Your task to perform on an android device: Open Youtube and go to the subscriptions tab Image 0: 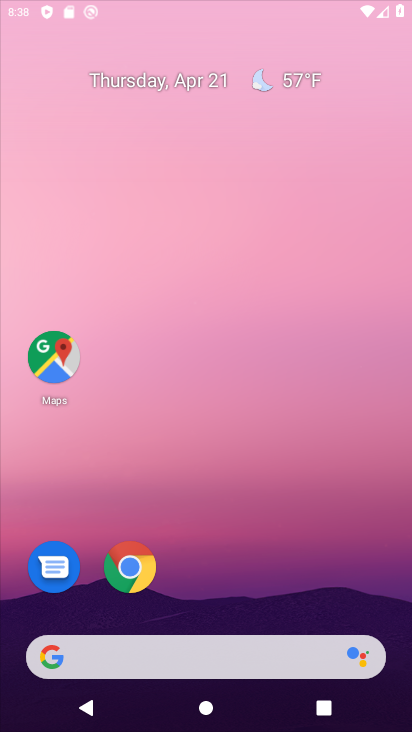
Step 0: click (199, 38)
Your task to perform on an android device: Open Youtube and go to the subscriptions tab Image 1: 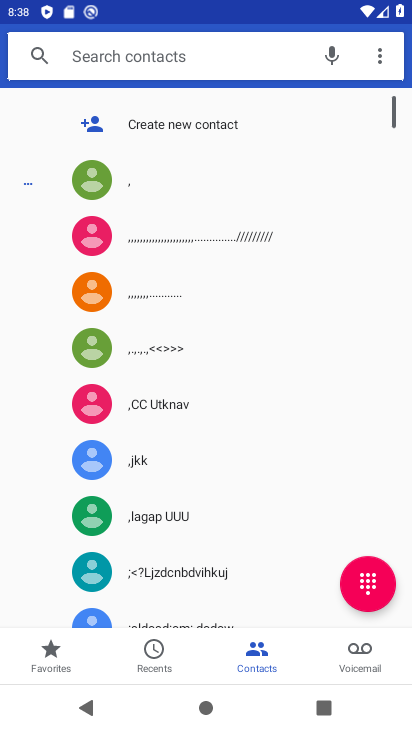
Step 1: press home button
Your task to perform on an android device: Open Youtube and go to the subscriptions tab Image 2: 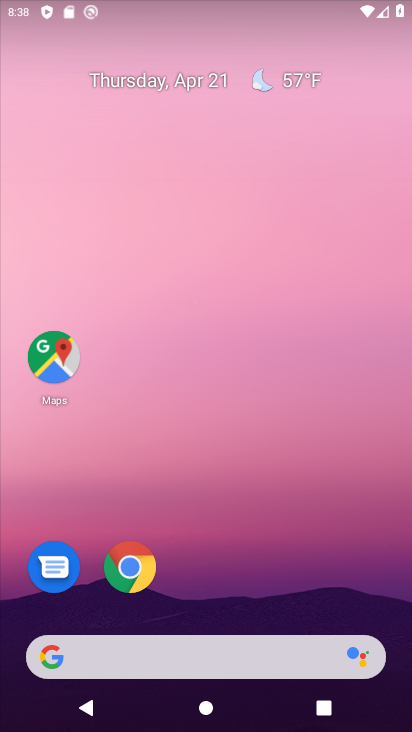
Step 2: drag from (207, 616) to (198, 10)
Your task to perform on an android device: Open Youtube and go to the subscriptions tab Image 3: 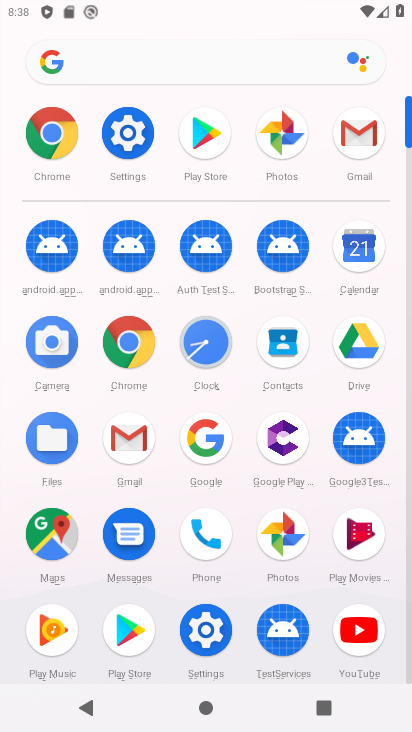
Step 3: click (352, 618)
Your task to perform on an android device: Open Youtube and go to the subscriptions tab Image 4: 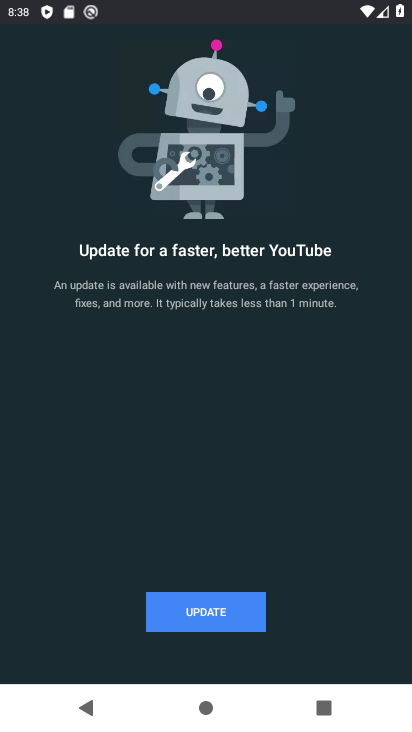
Step 4: click (179, 611)
Your task to perform on an android device: Open Youtube and go to the subscriptions tab Image 5: 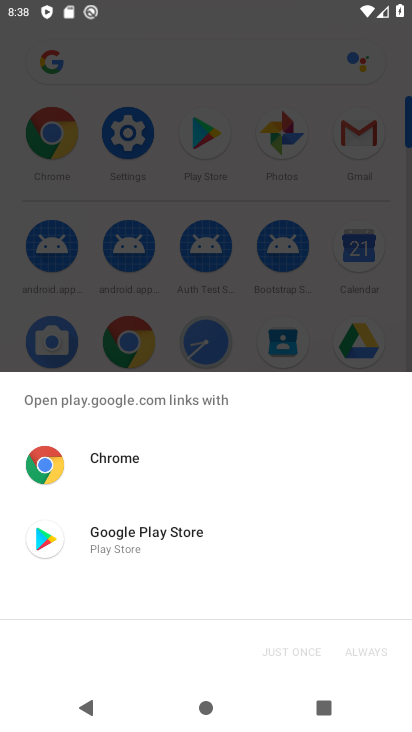
Step 5: click (201, 547)
Your task to perform on an android device: Open Youtube and go to the subscriptions tab Image 6: 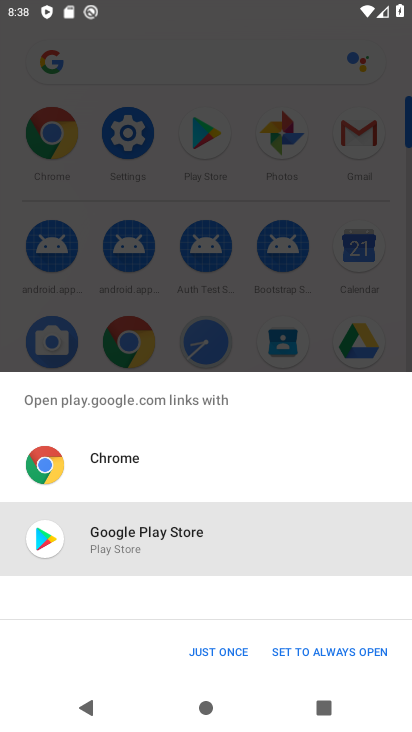
Step 6: click (206, 654)
Your task to perform on an android device: Open Youtube and go to the subscriptions tab Image 7: 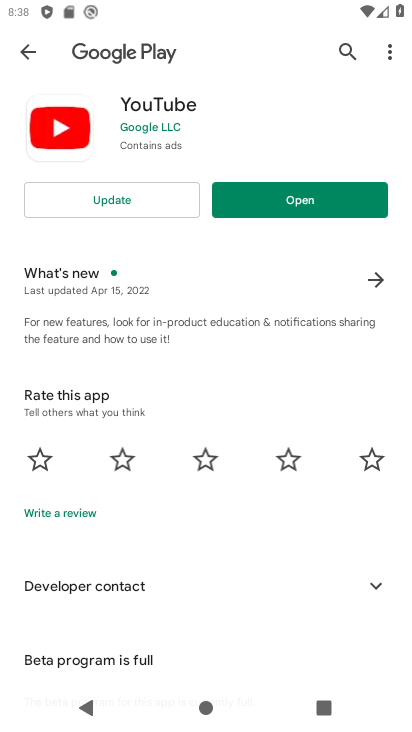
Step 7: click (138, 204)
Your task to perform on an android device: Open Youtube and go to the subscriptions tab Image 8: 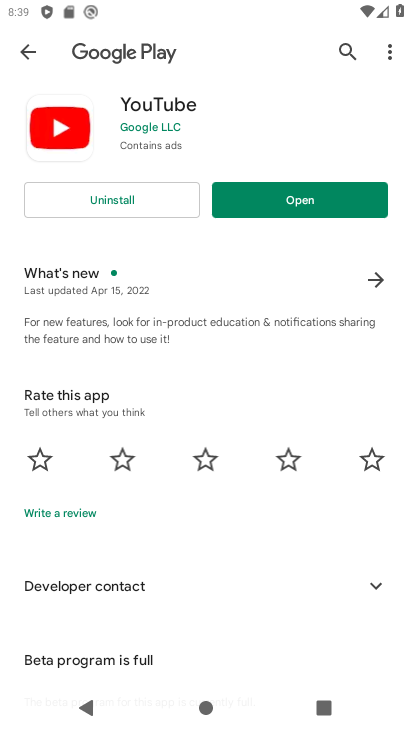
Step 8: click (312, 195)
Your task to perform on an android device: Open Youtube and go to the subscriptions tab Image 9: 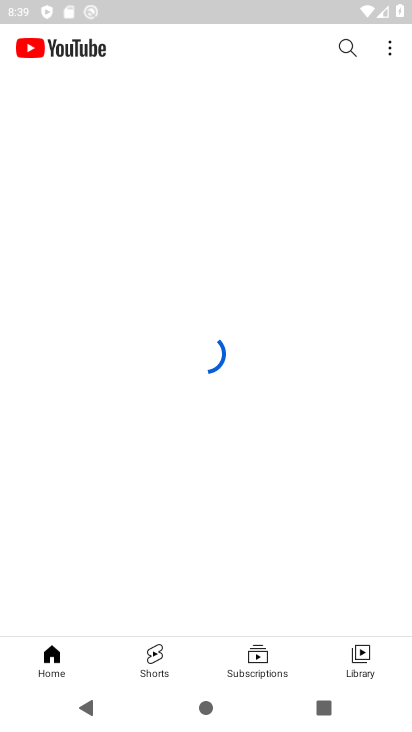
Step 9: click (271, 661)
Your task to perform on an android device: Open Youtube and go to the subscriptions tab Image 10: 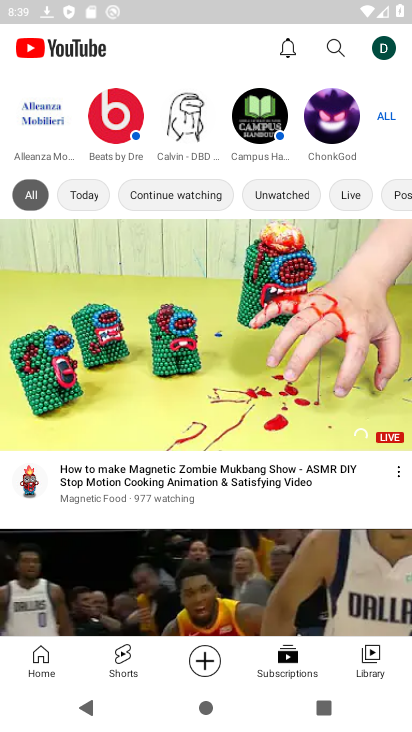
Step 10: task complete